Your task to perform on an android device: Open Yahoo.com Image 0: 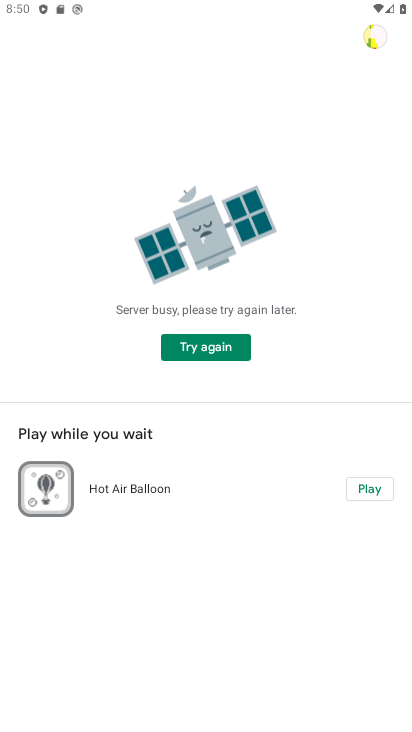
Step 0: press home button
Your task to perform on an android device: Open Yahoo.com Image 1: 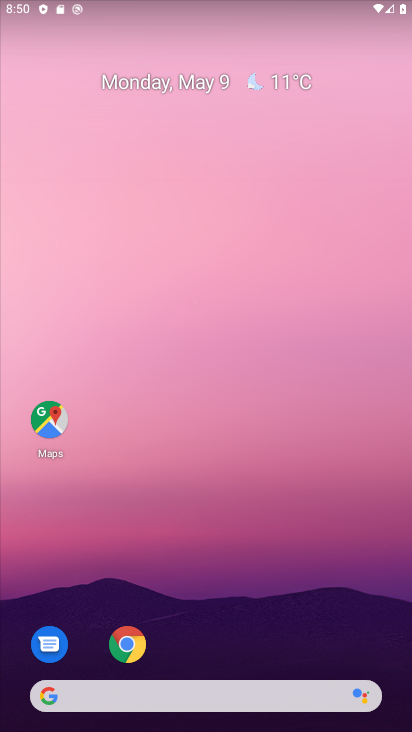
Step 1: click (114, 652)
Your task to perform on an android device: Open Yahoo.com Image 2: 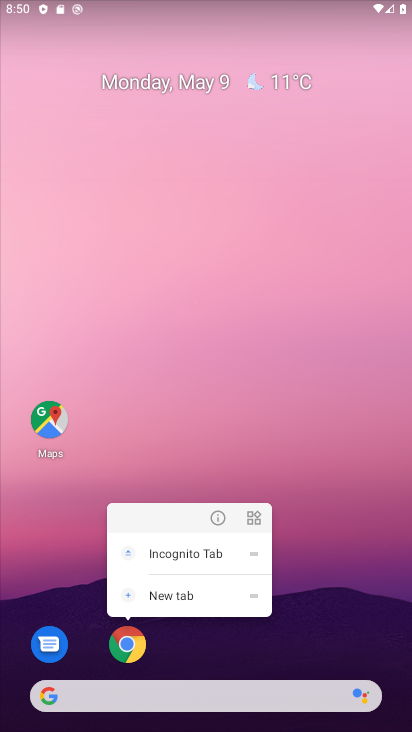
Step 2: click (120, 640)
Your task to perform on an android device: Open Yahoo.com Image 3: 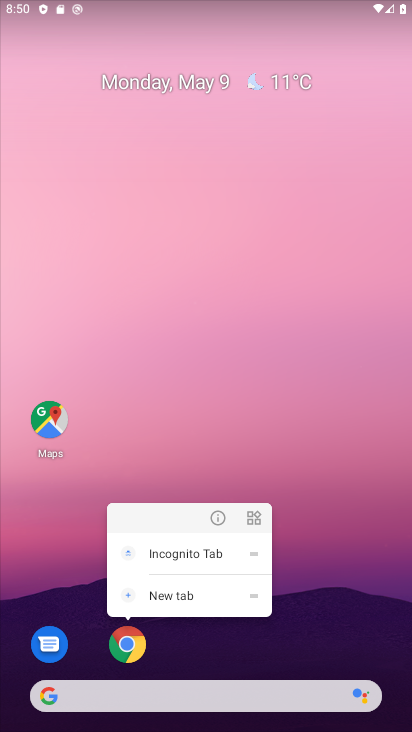
Step 3: click (120, 643)
Your task to perform on an android device: Open Yahoo.com Image 4: 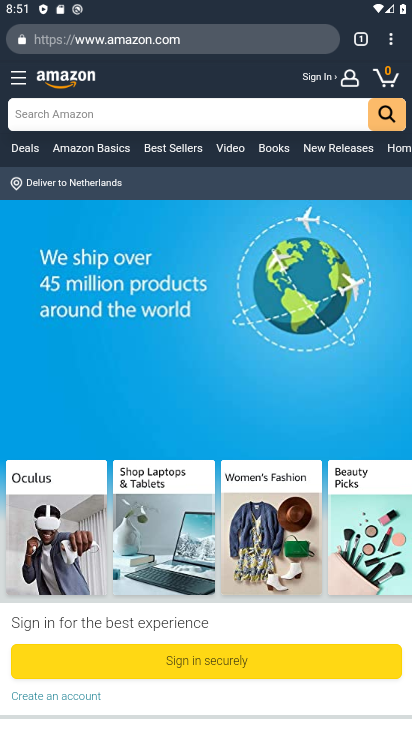
Step 4: click (356, 38)
Your task to perform on an android device: Open Yahoo.com Image 5: 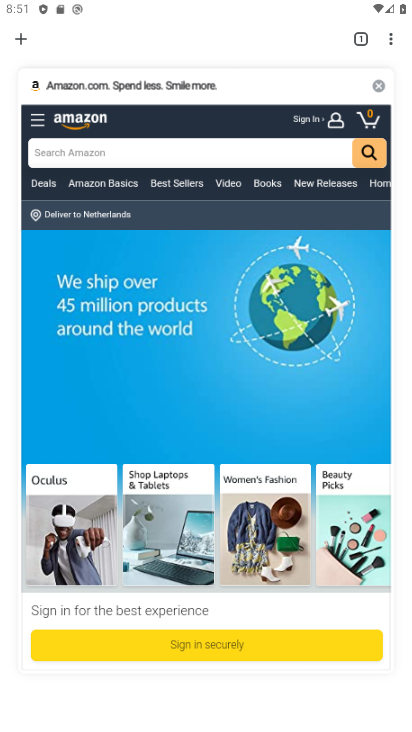
Step 5: click (13, 32)
Your task to perform on an android device: Open Yahoo.com Image 6: 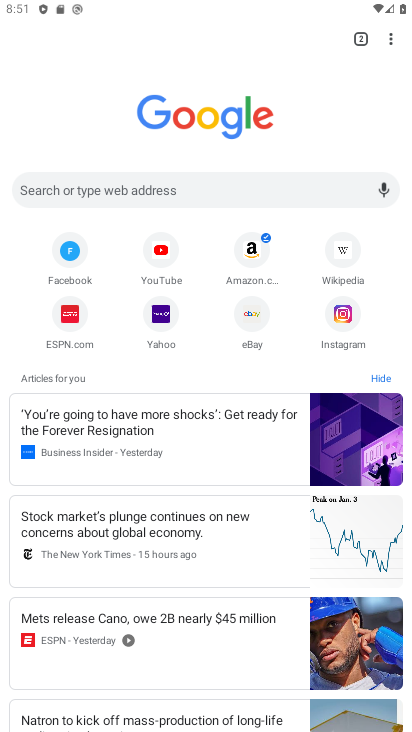
Step 6: click (157, 323)
Your task to perform on an android device: Open Yahoo.com Image 7: 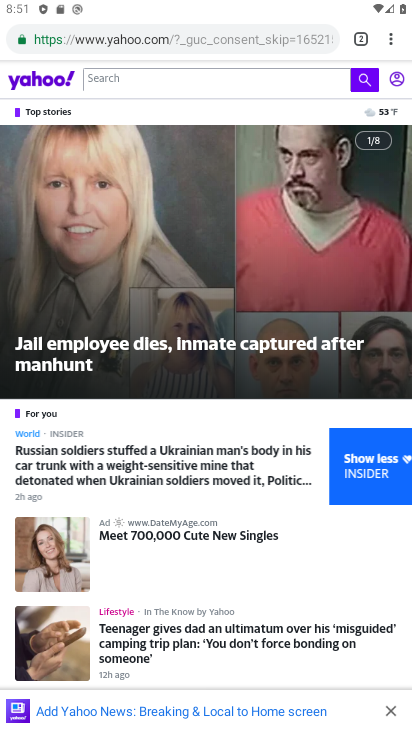
Step 7: task complete